Your task to perform on an android device: clear all cookies in the chrome app Image 0: 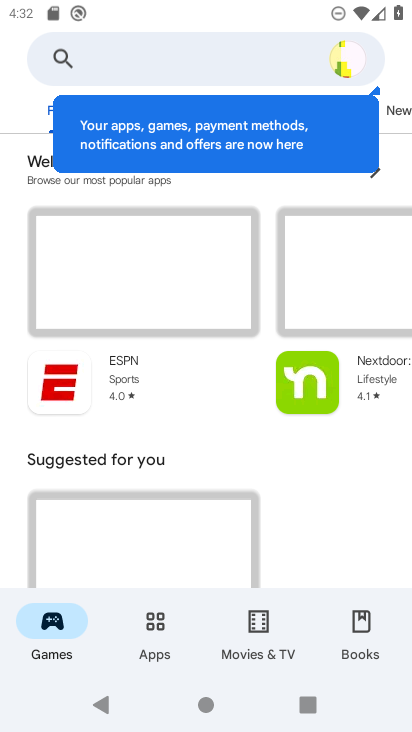
Step 0: press home button
Your task to perform on an android device: clear all cookies in the chrome app Image 1: 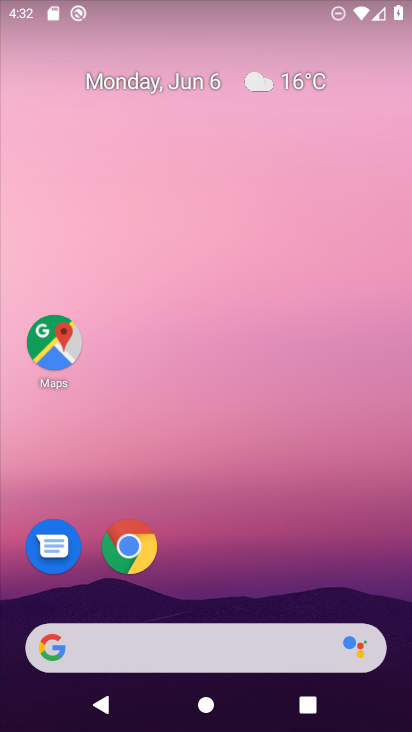
Step 1: click (136, 548)
Your task to perform on an android device: clear all cookies in the chrome app Image 2: 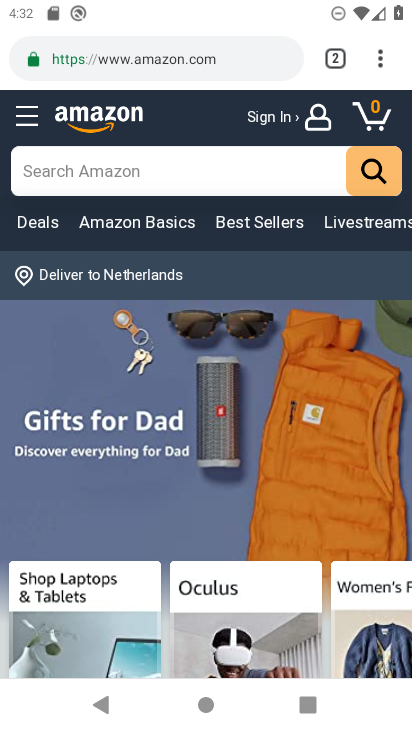
Step 2: drag from (378, 53) to (161, 574)
Your task to perform on an android device: clear all cookies in the chrome app Image 3: 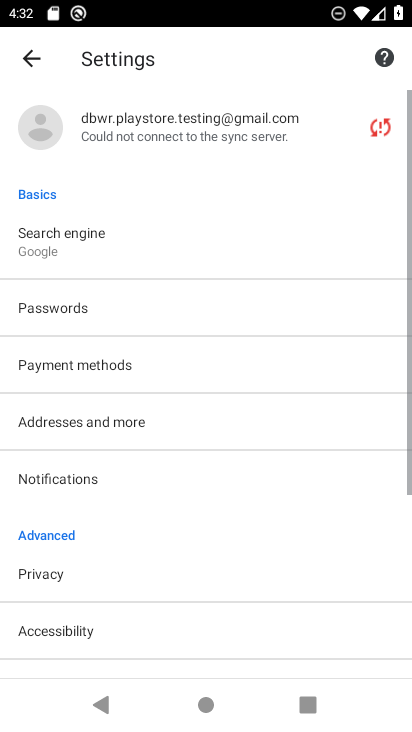
Step 3: drag from (160, 570) to (88, 128)
Your task to perform on an android device: clear all cookies in the chrome app Image 4: 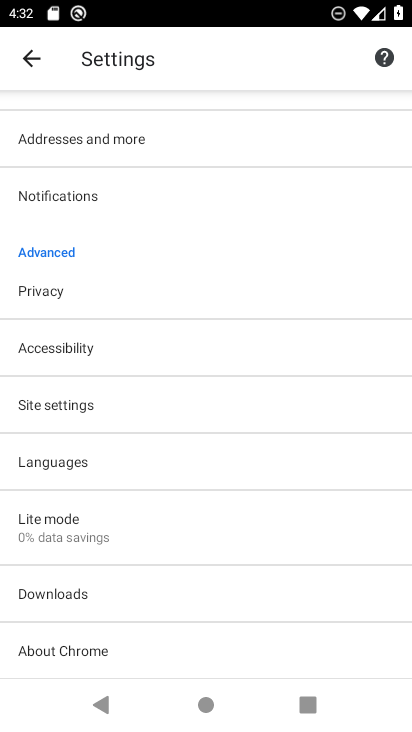
Step 4: click (44, 304)
Your task to perform on an android device: clear all cookies in the chrome app Image 5: 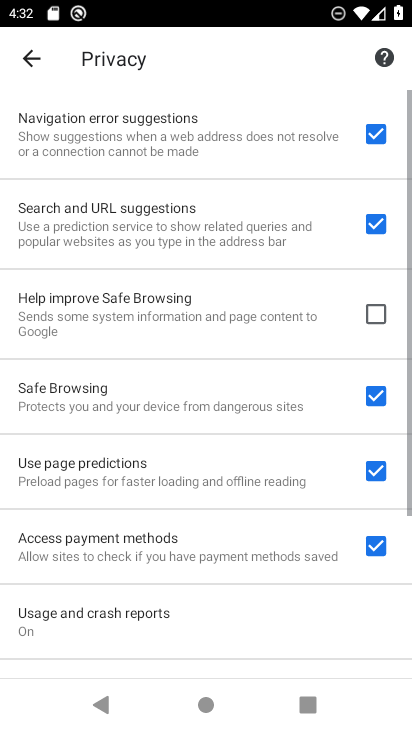
Step 5: drag from (158, 566) to (103, 148)
Your task to perform on an android device: clear all cookies in the chrome app Image 6: 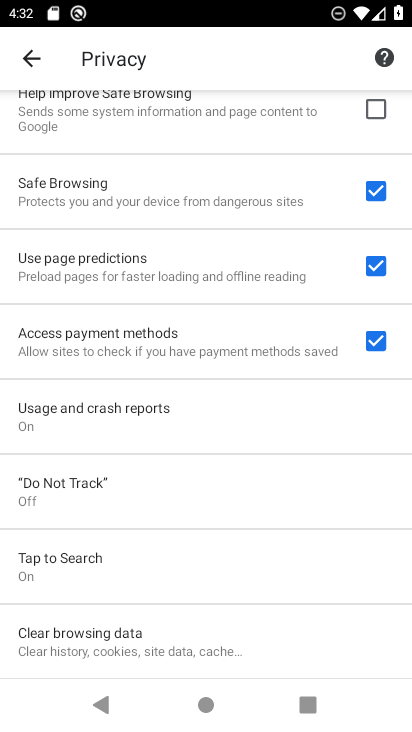
Step 6: click (109, 641)
Your task to perform on an android device: clear all cookies in the chrome app Image 7: 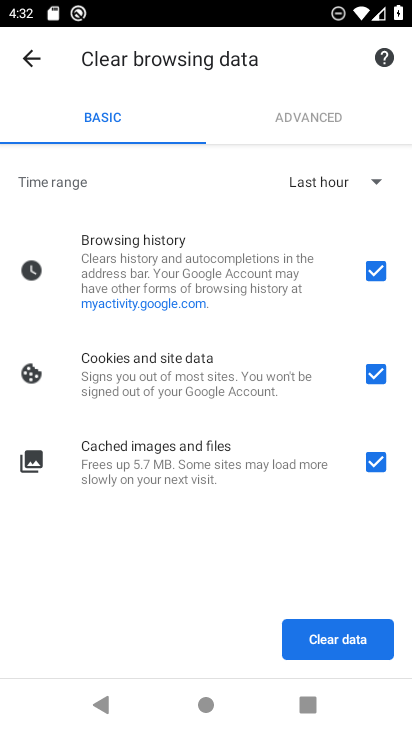
Step 7: click (322, 631)
Your task to perform on an android device: clear all cookies in the chrome app Image 8: 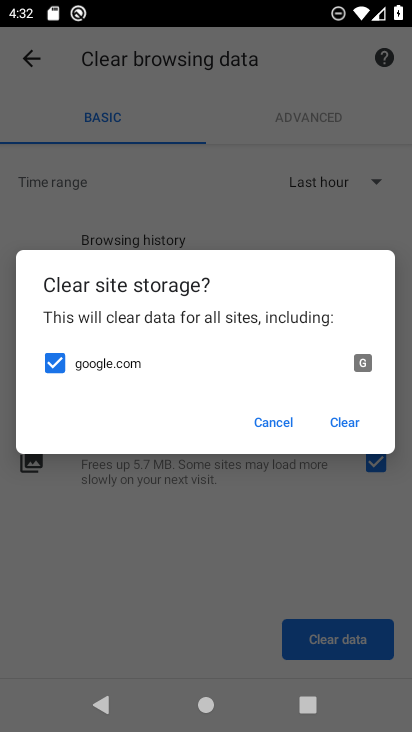
Step 8: click (347, 418)
Your task to perform on an android device: clear all cookies in the chrome app Image 9: 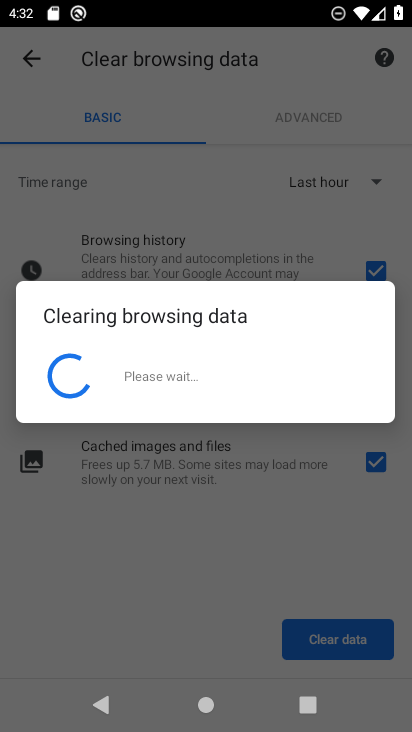
Step 9: task complete